Your task to perform on an android device: refresh tabs in the chrome app Image 0: 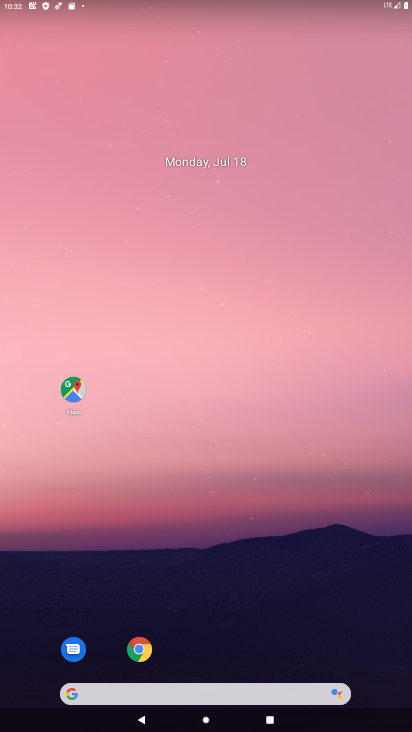
Step 0: click (137, 650)
Your task to perform on an android device: refresh tabs in the chrome app Image 1: 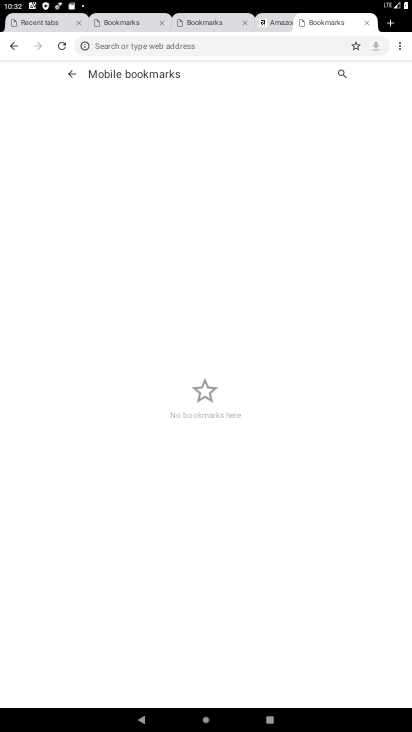
Step 1: click (400, 47)
Your task to perform on an android device: refresh tabs in the chrome app Image 2: 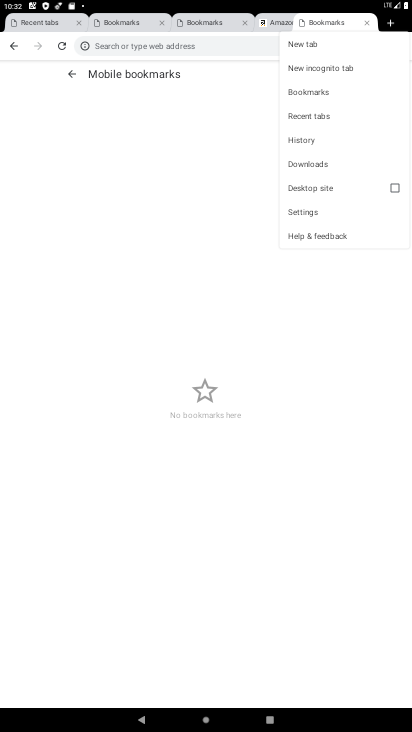
Step 2: click (64, 45)
Your task to perform on an android device: refresh tabs in the chrome app Image 3: 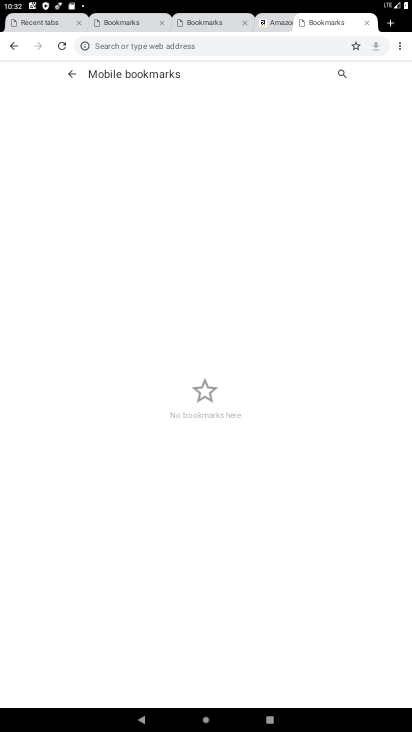
Step 3: click (64, 45)
Your task to perform on an android device: refresh tabs in the chrome app Image 4: 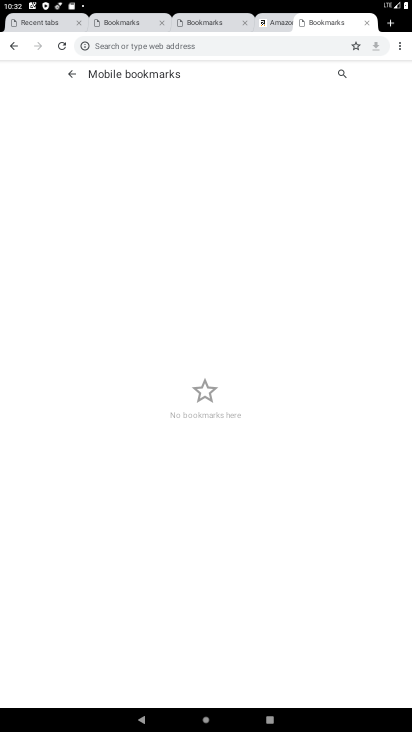
Step 4: task complete